Your task to perform on an android device: turn on airplane mode Image 0: 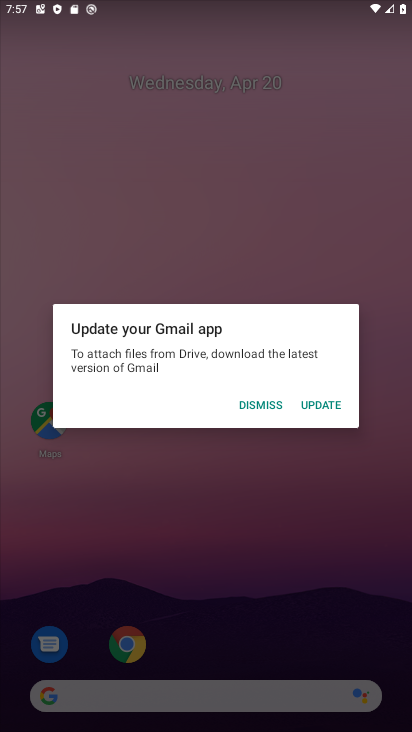
Step 0: press home button
Your task to perform on an android device: turn on airplane mode Image 1: 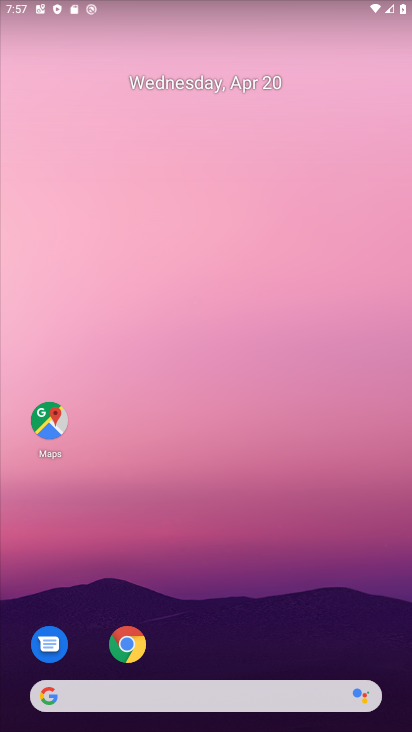
Step 1: drag from (267, 6) to (282, 342)
Your task to perform on an android device: turn on airplane mode Image 2: 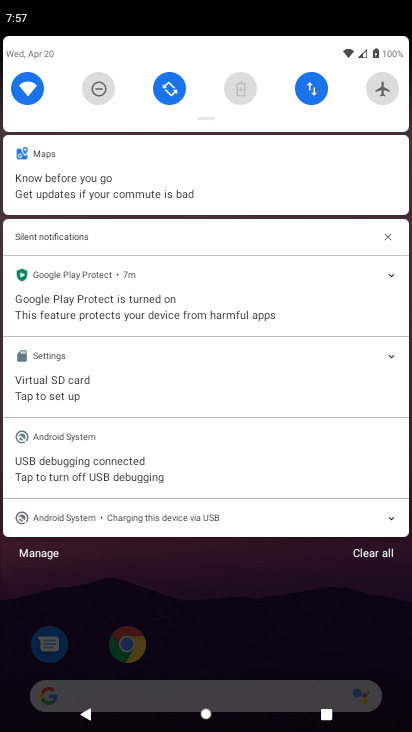
Step 2: drag from (193, 90) to (243, 476)
Your task to perform on an android device: turn on airplane mode Image 3: 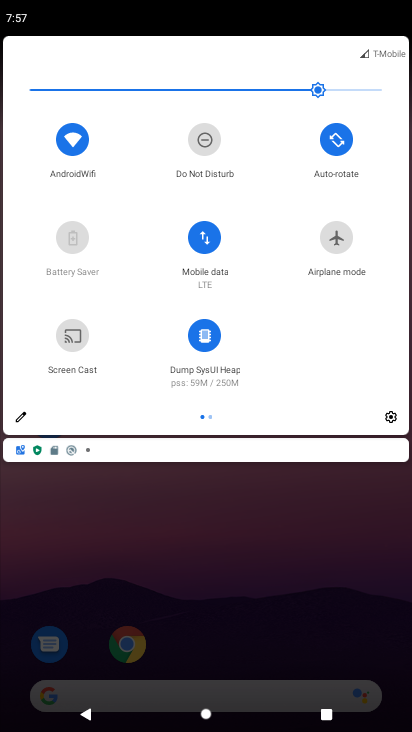
Step 3: click (336, 238)
Your task to perform on an android device: turn on airplane mode Image 4: 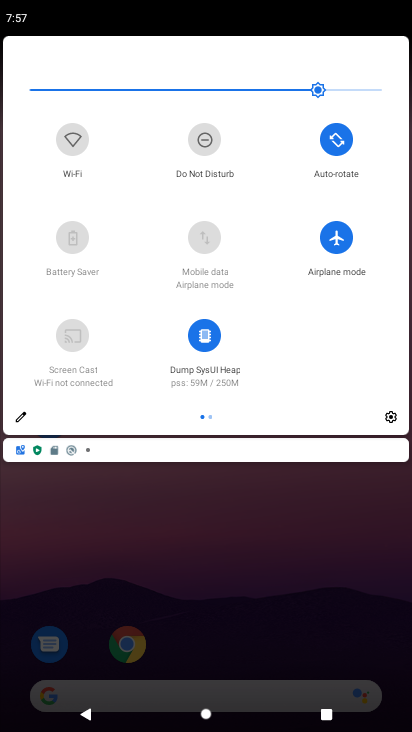
Step 4: task complete